Your task to perform on an android device: turn off sleep mode Image 0: 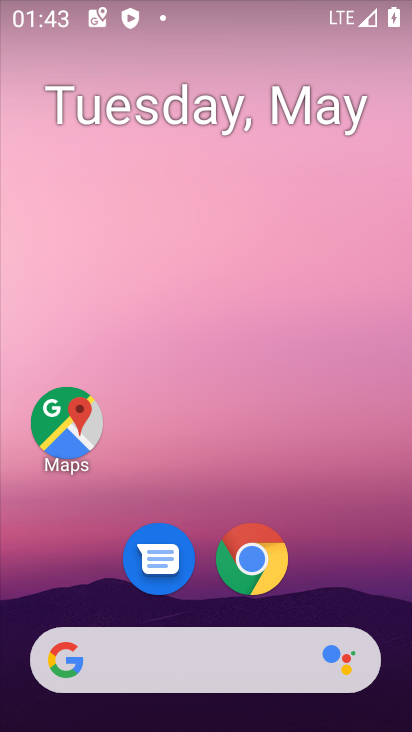
Step 0: drag from (332, 533) to (236, 5)
Your task to perform on an android device: turn off sleep mode Image 1: 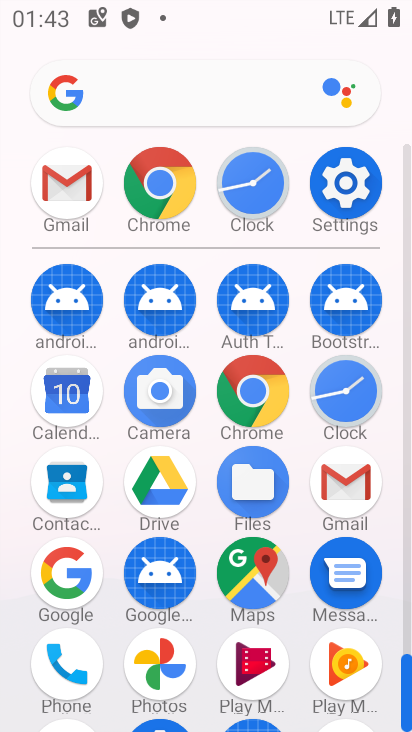
Step 1: click (355, 176)
Your task to perform on an android device: turn off sleep mode Image 2: 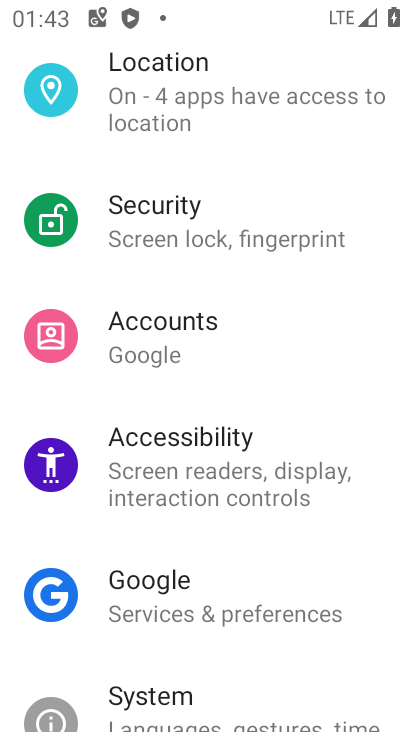
Step 2: drag from (263, 277) to (203, 666)
Your task to perform on an android device: turn off sleep mode Image 3: 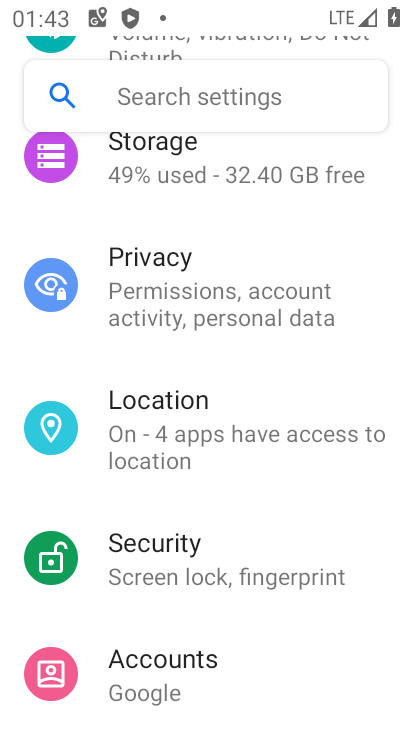
Step 3: drag from (238, 209) to (209, 663)
Your task to perform on an android device: turn off sleep mode Image 4: 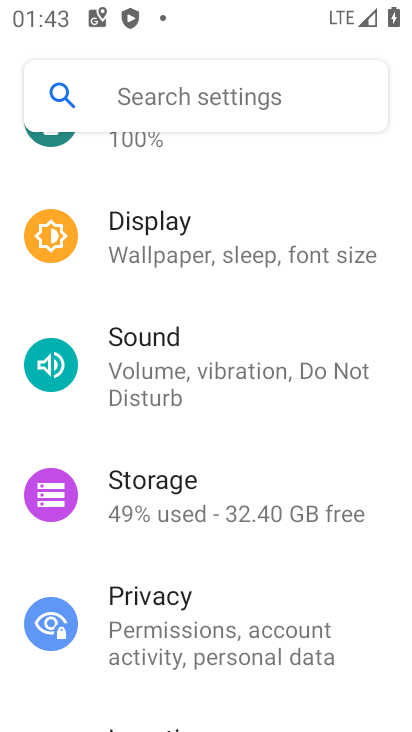
Step 4: click (212, 243)
Your task to perform on an android device: turn off sleep mode Image 5: 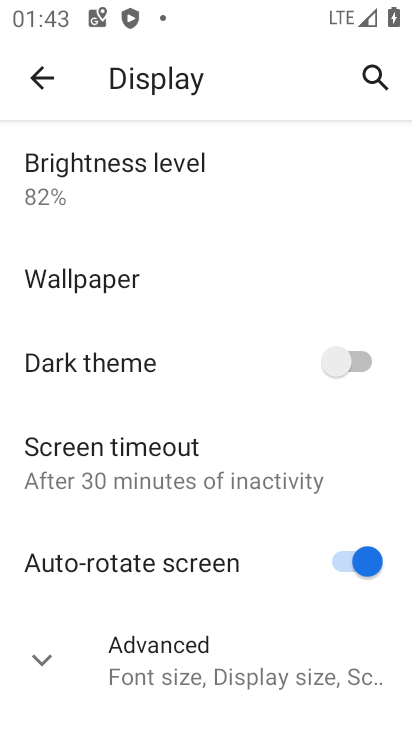
Step 5: task complete